Your task to perform on an android device: delete location history Image 0: 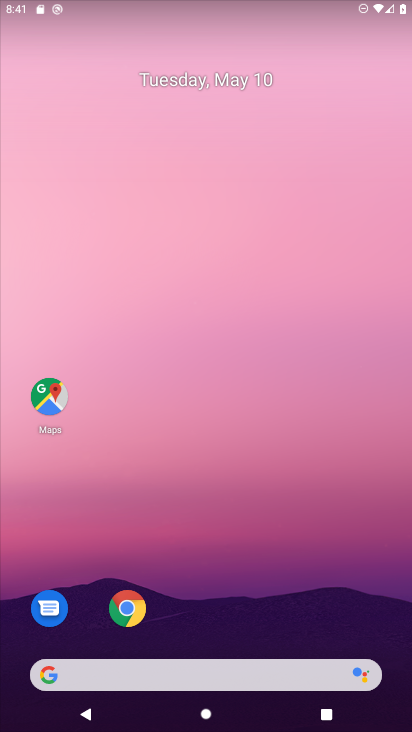
Step 0: drag from (318, 607) to (212, 79)
Your task to perform on an android device: delete location history Image 1: 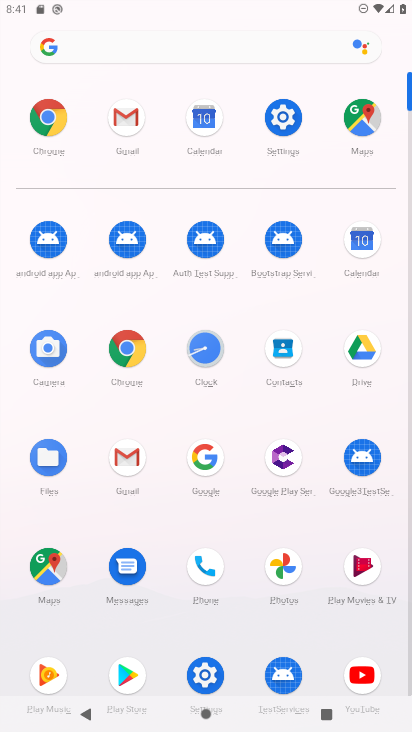
Step 1: click (209, 673)
Your task to perform on an android device: delete location history Image 2: 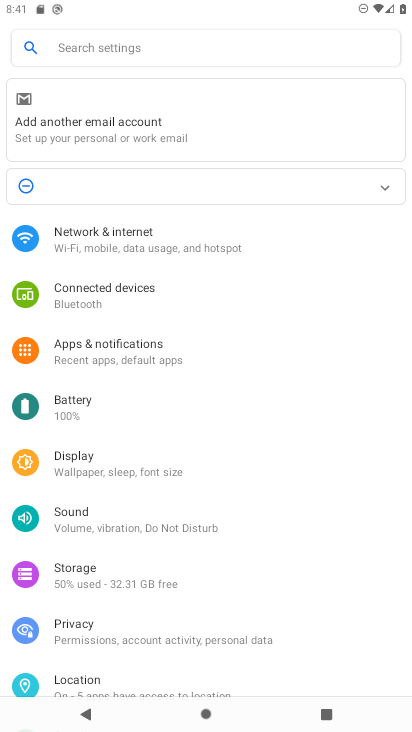
Step 2: click (105, 684)
Your task to perform on an android device: delete location history Image 3: 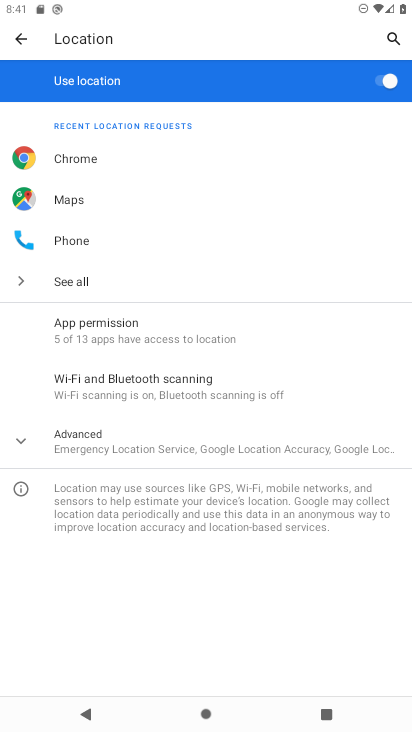
Step 3: click (26, 454)
Your task to perform on an android device: delete location history Image 4: 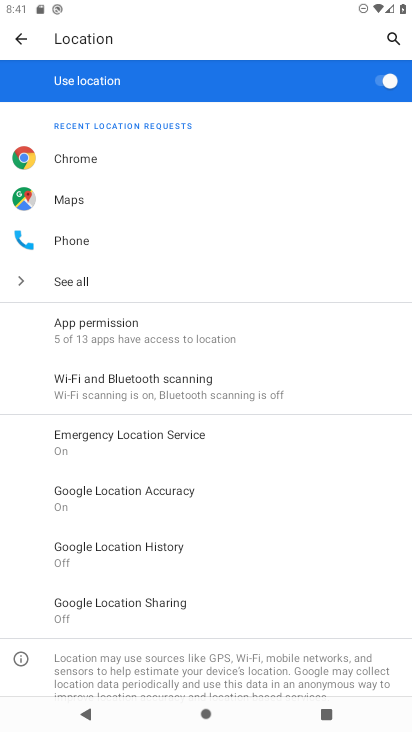
Step 4: click (172, 556)
Your task to perform on an android device: delete location history Image 5: 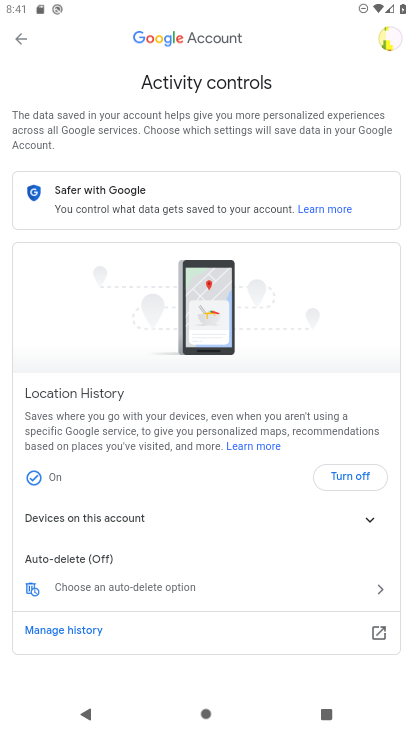
Step 5: drag from (256, 614) to (202, 145)
Your task to perform on an android device: delete location history Image 6: 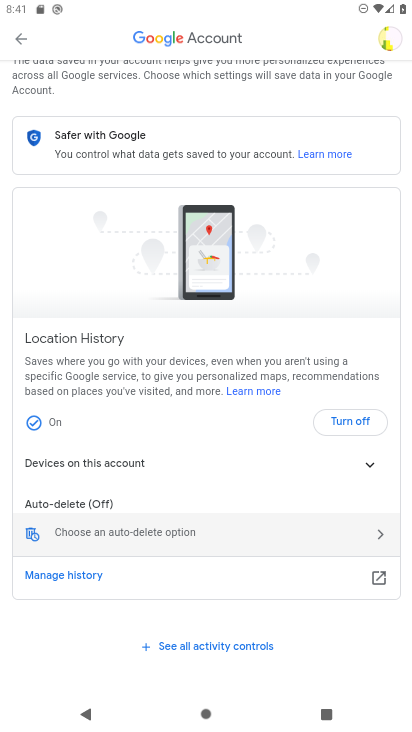
Step 6: click (120, 504)
Your task to perform on an android device: delete location history Image 7: 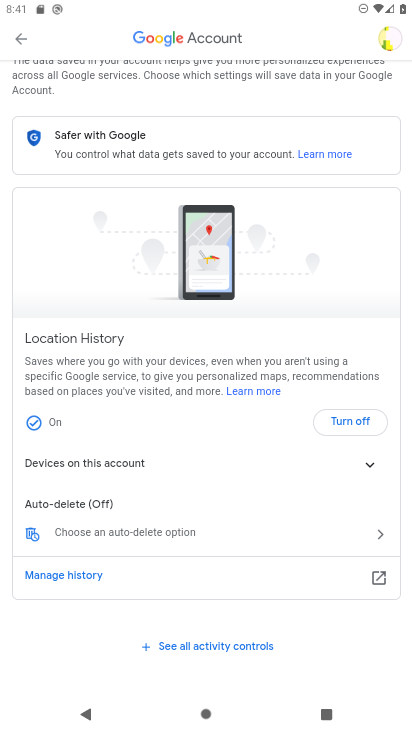
Step 7: click (217, 549)
Your task to perform on an android device: delete location history Image 8: 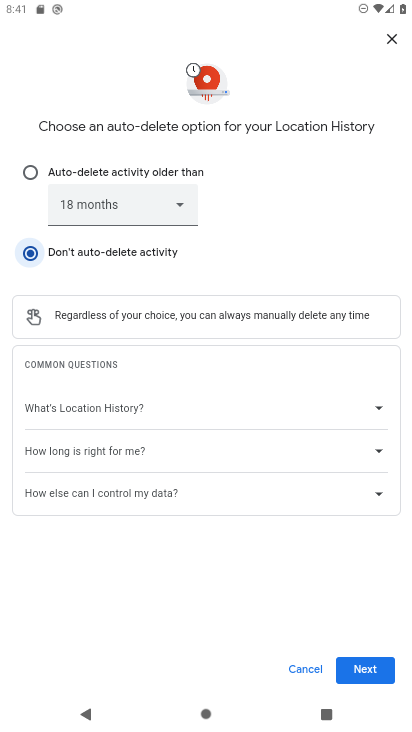
Step 8: click (370, 664)
Your task to perform on an android device: delete location history Image 9: 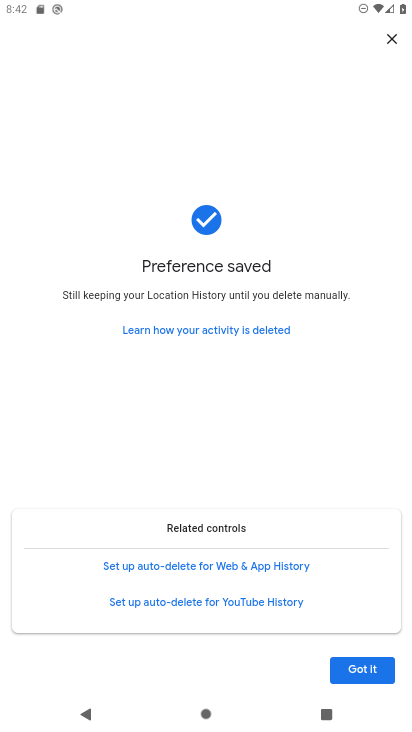
Step 9: click (348, 673)
Your task to perform on an android device: delete location history Image 10: 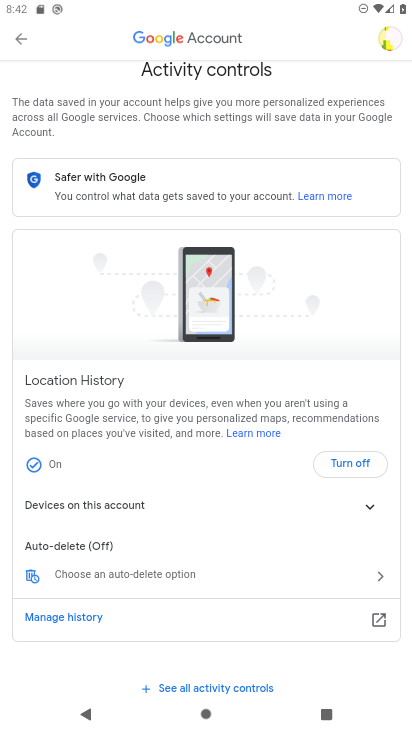
Step 10: task complete